Your task to perform on an android device: see sites visited before in the chrome app Image 0: 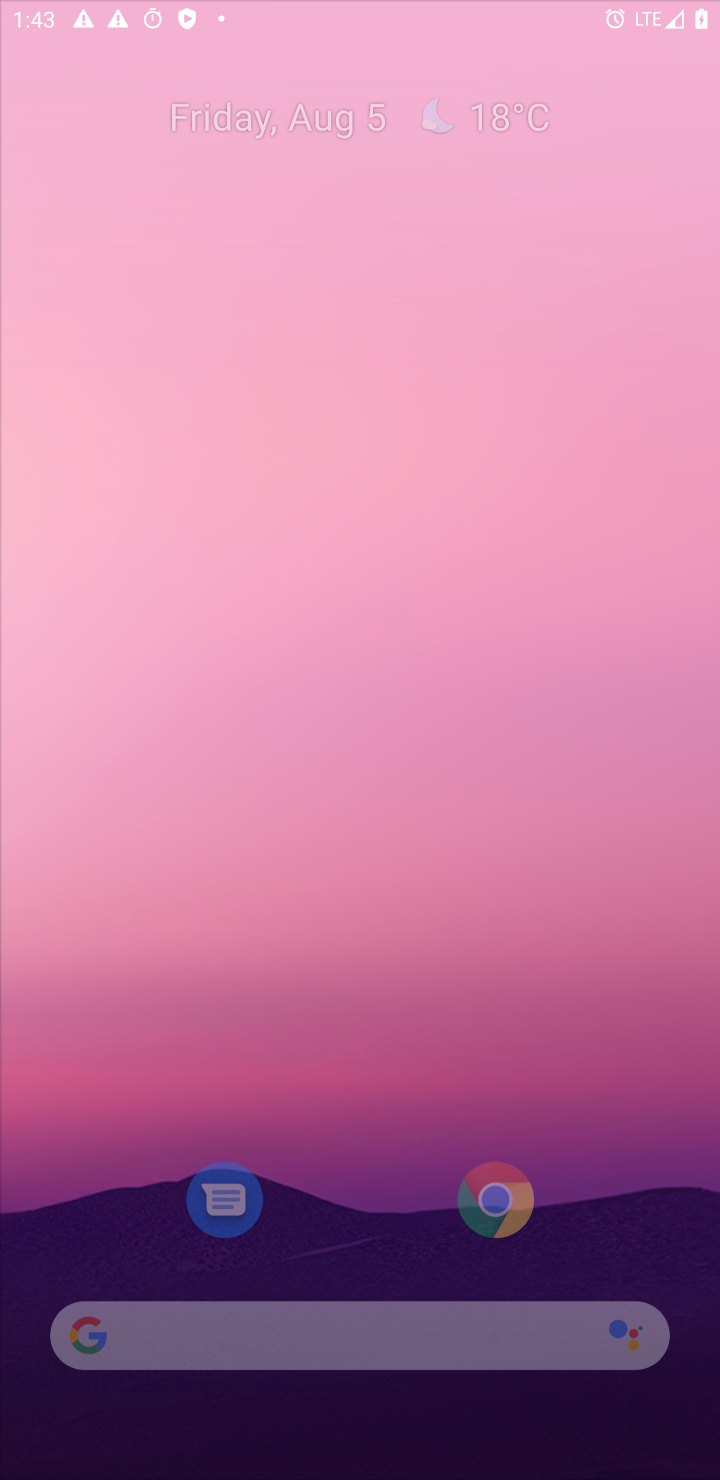
Step 0: press home button
Your task to perform on an android device: see sites visited before in the chrome app Image 1: 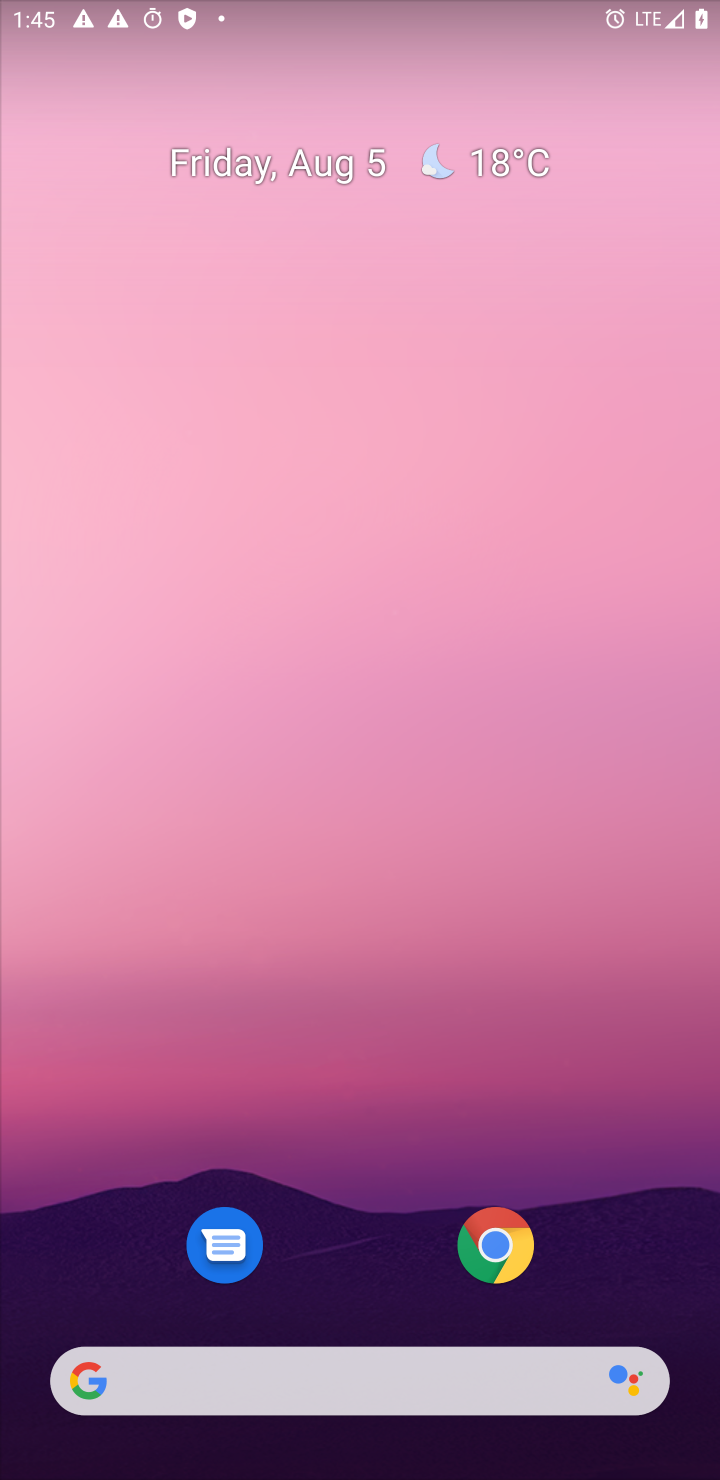
Step 1: click (479, 1272)
Your task to perform on an android device: see sites visited before in the chrome app Image 2: 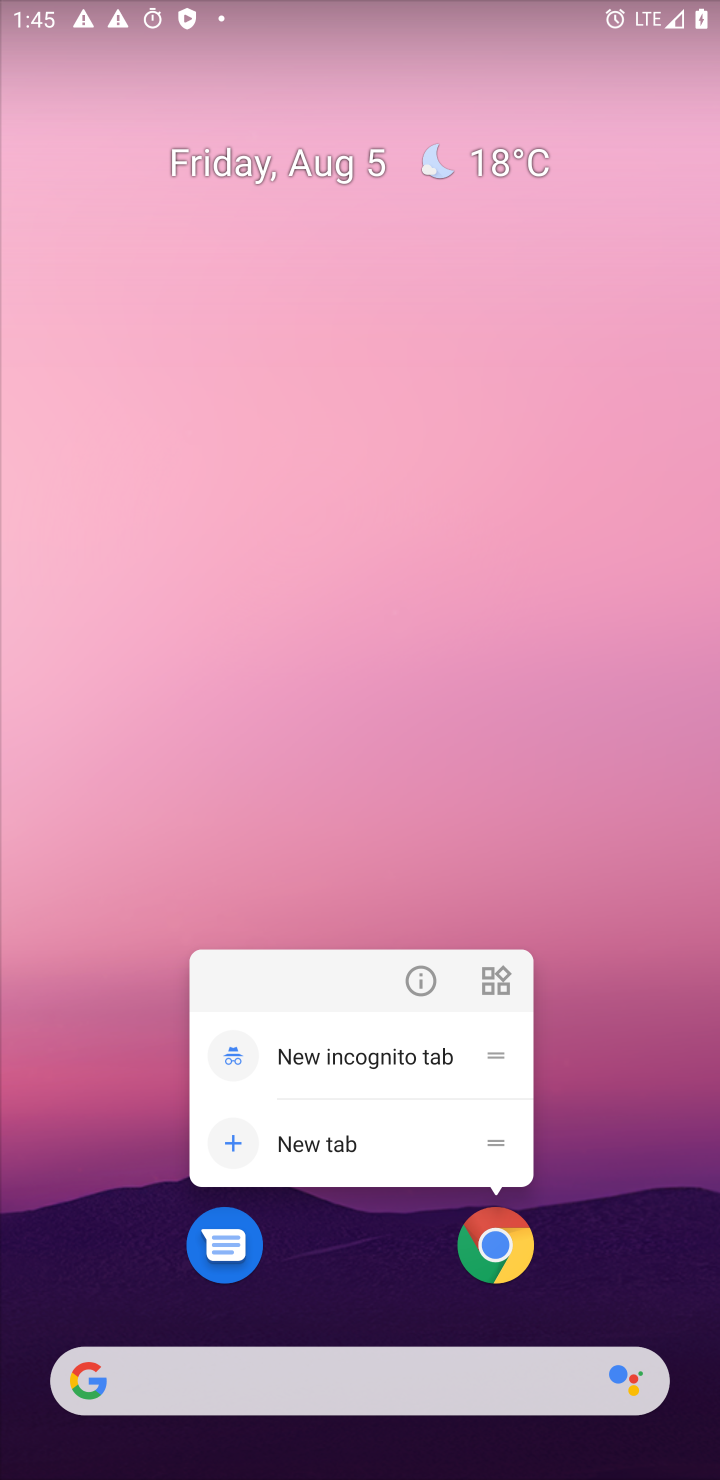
Step 2: click (479, 1272)
Your task to perform on an android device: see sites visited before in the chrome app Image 3: 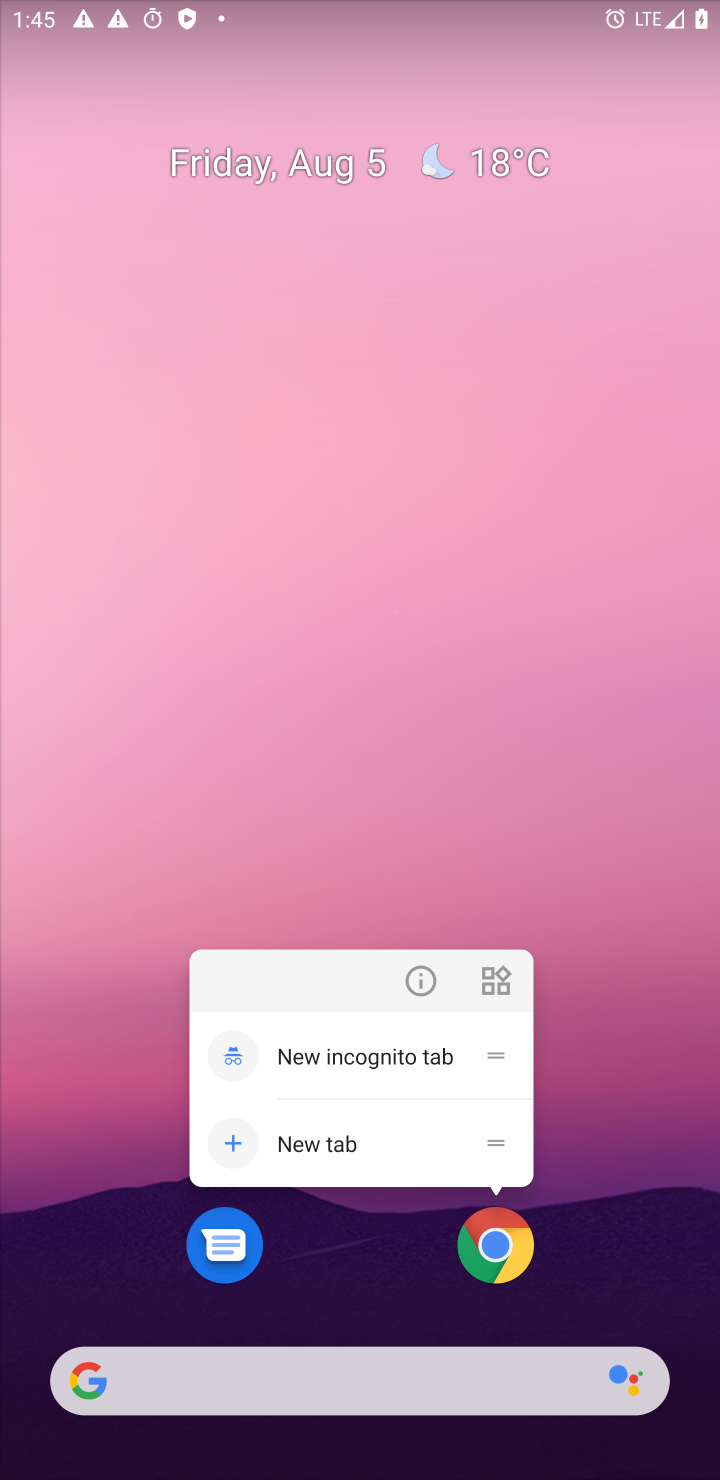
Step 3: click (455, 1278)
Your task to perform on an android device: see sites visited before in the chrome app Image 4: 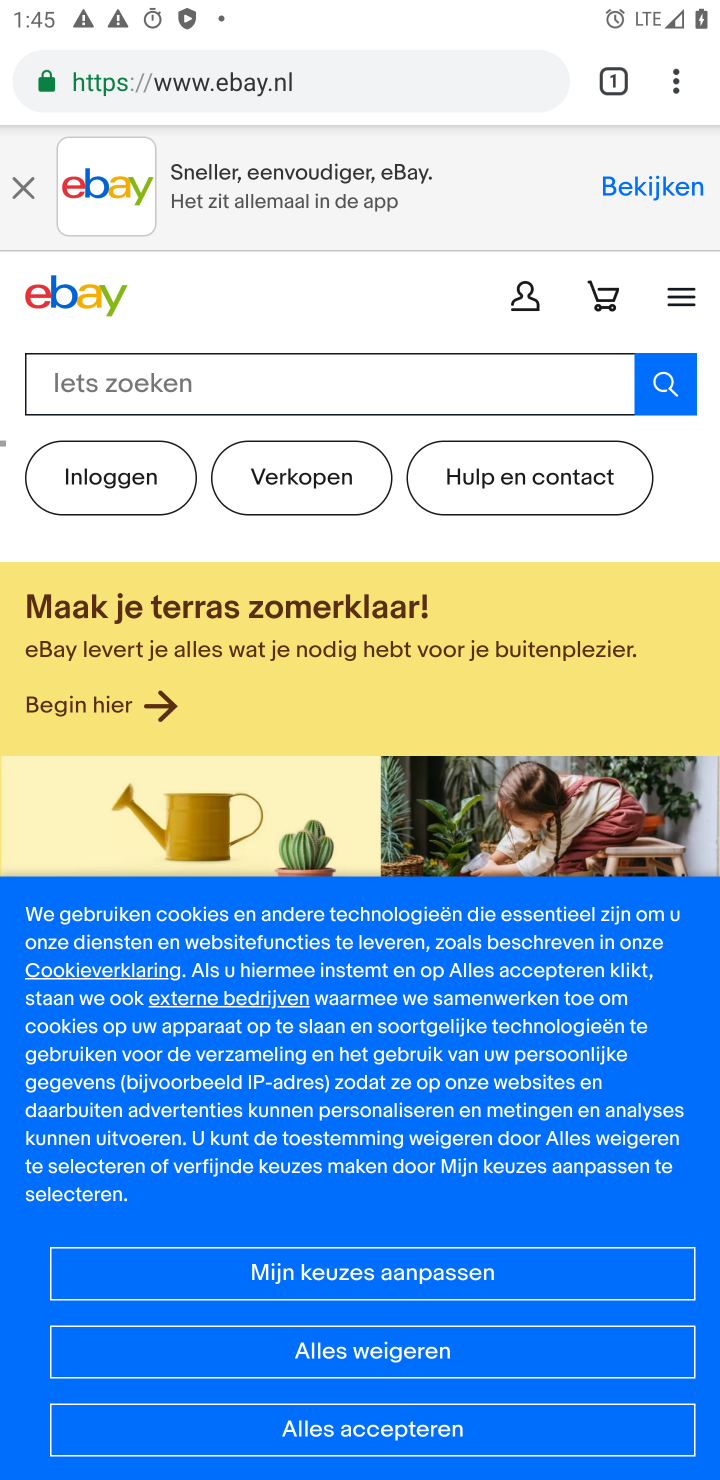
Step 4: click (502, 1228)
Your task to perform on an android device: see sites visited before in the chrome app Image 5: 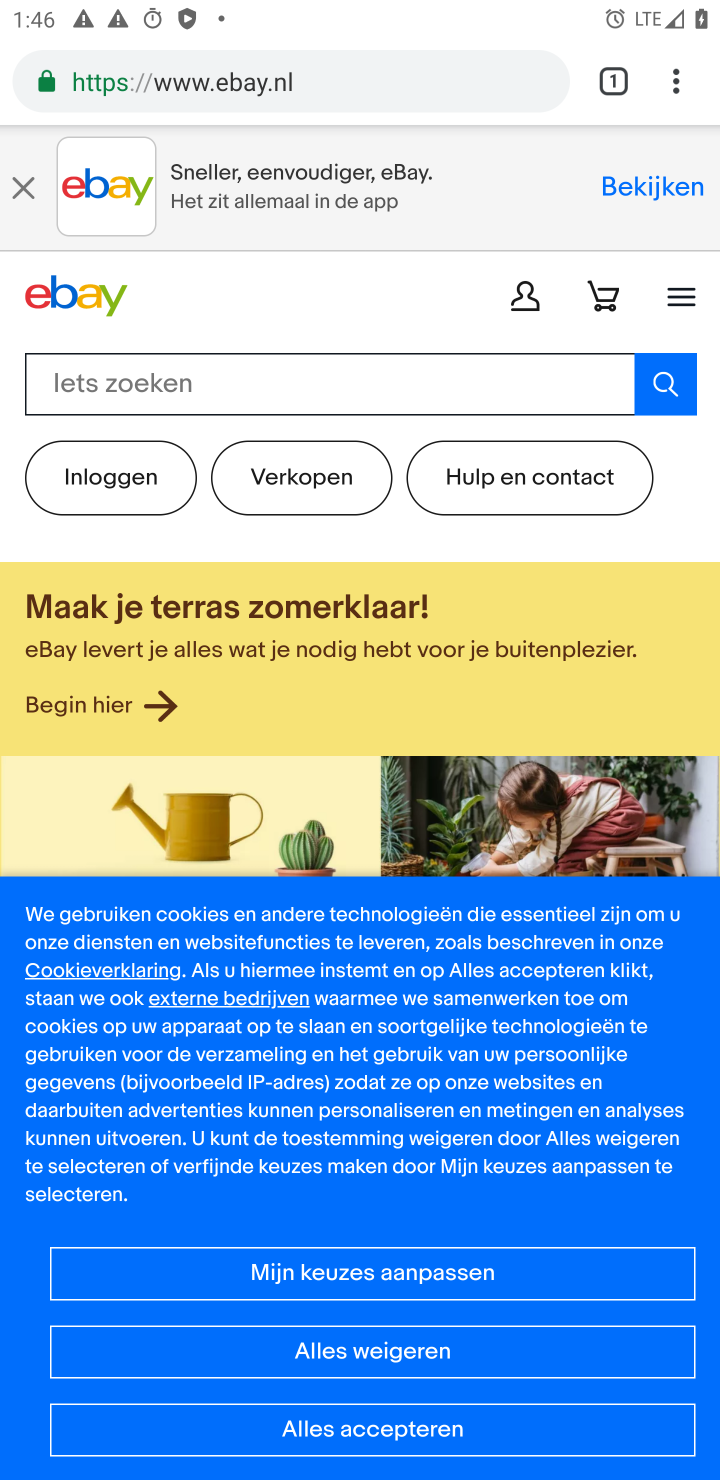
Step 5: click (675, 72)
Your task to perform on an android device: see sites visited before in the chrome app Image 6: 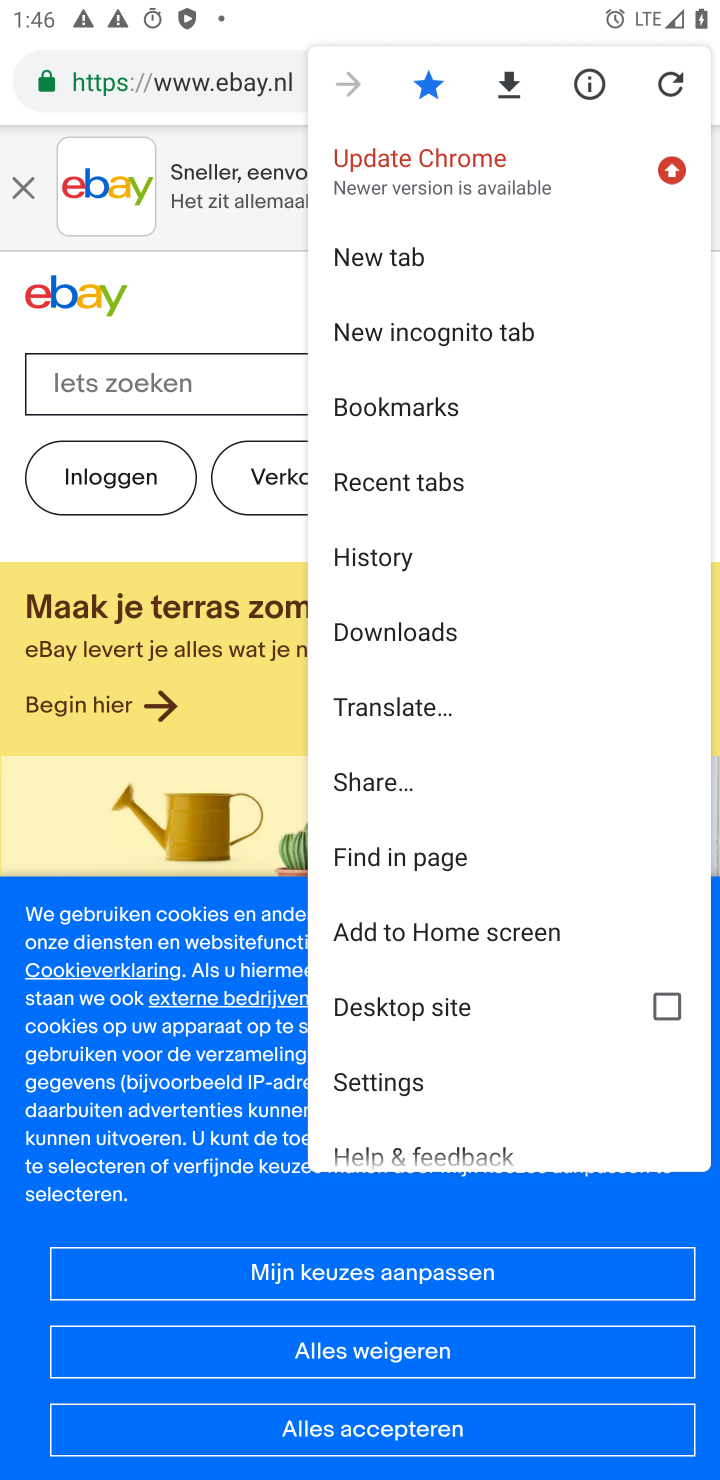
Step 6: click (380, 551)
Your task to perform on an android device: see sites visited before in the chrome app Image 7: 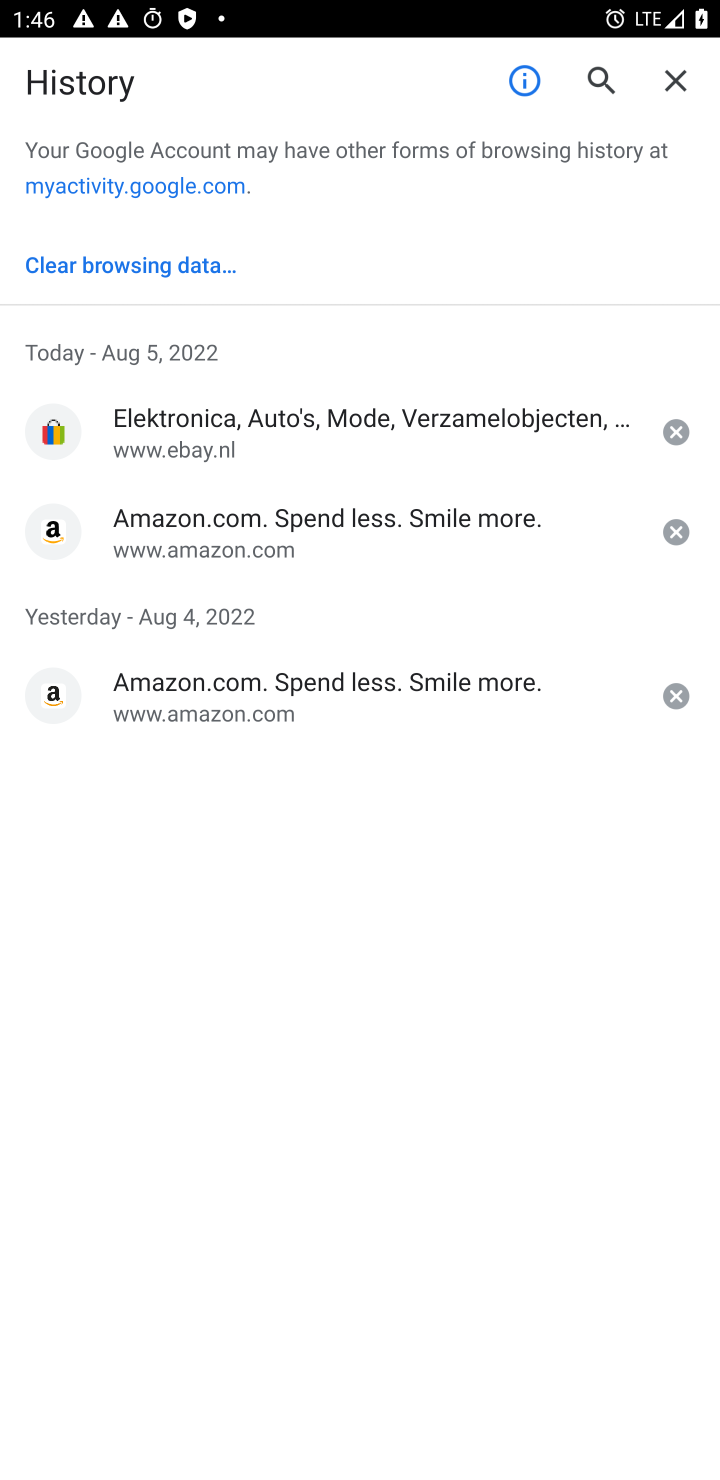
Step 7: task complete